Your task to perform on an android device: Search for sushi restaurants on Maps Image 0: 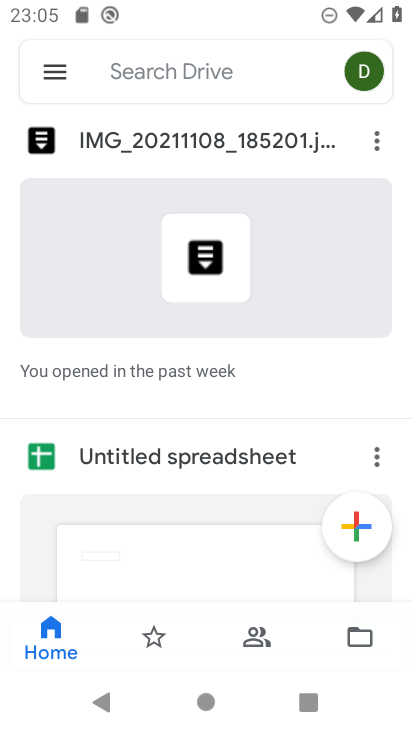
Step 0: press home button
Your task to perform on an android device: Search for sushi restaurants on Maps Image 1: 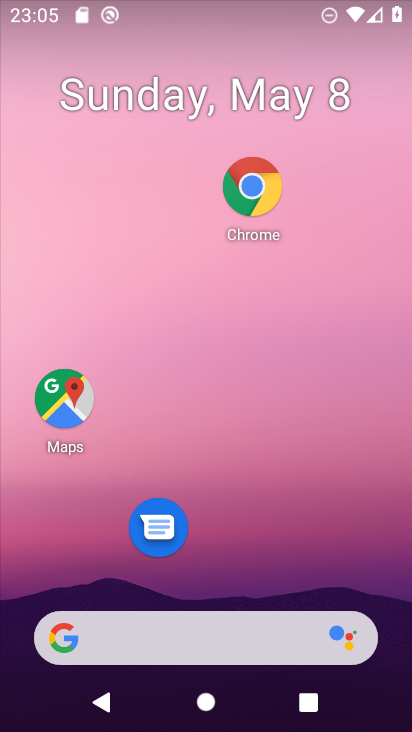
Step 1: drag from (283, 497) to (338, 99)
Your task to perform on an android device: Search for sushi restaurants on Maps Image 2: 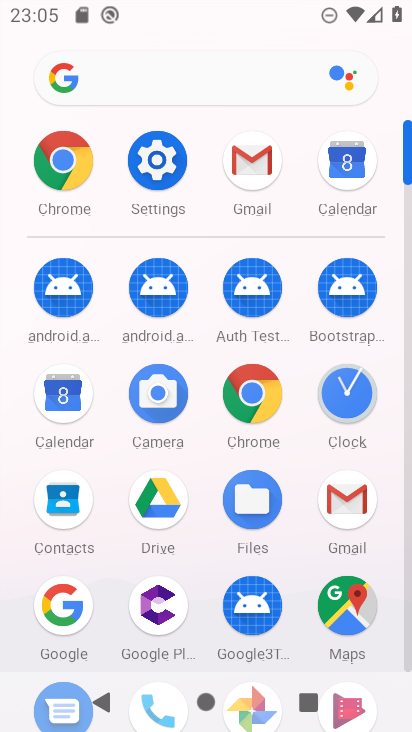
Step 2: click (333, 592)
Your task to perform on an android device: Search for sushi restaurants on Maps Image 3: 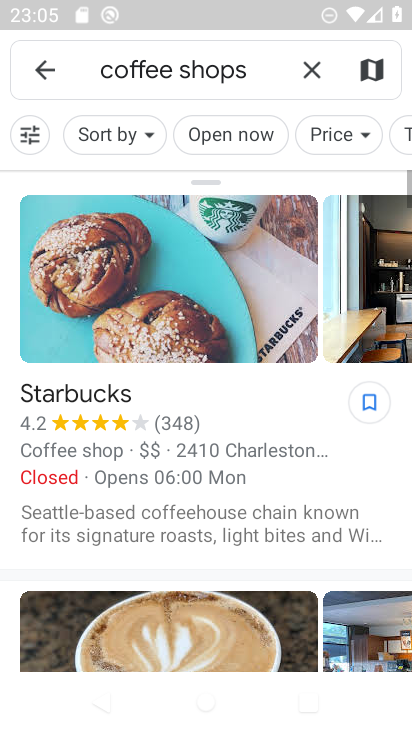
Step 3: click (310, 74)
Your task to perform on an android device: Search for sushi restaurants on Maps Image 4: 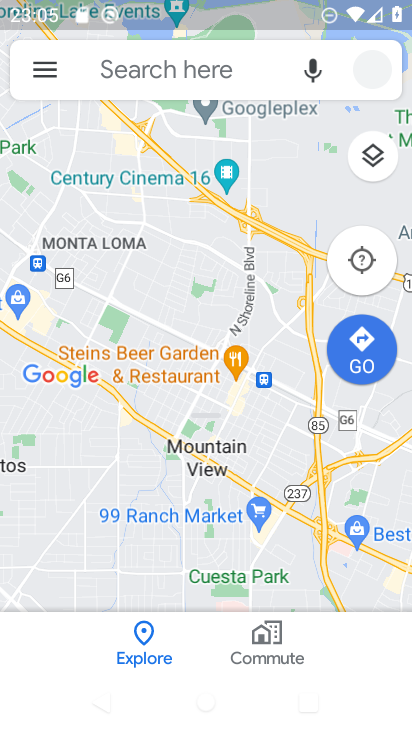
Step 4: click (151, 54)
Your task to perform on an android device: Search for sushi restaurants on Maps Image 5: 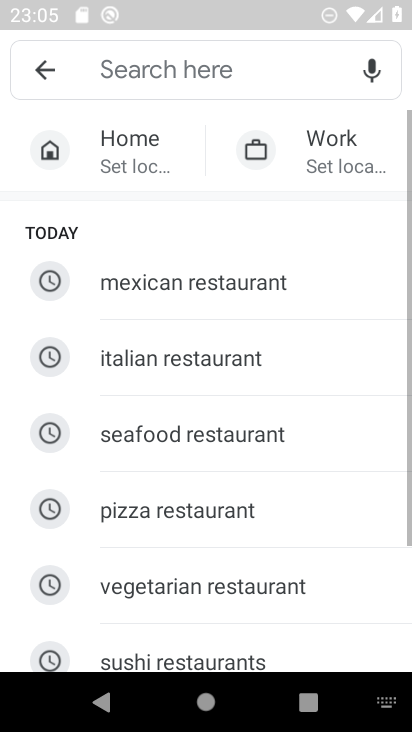
Step 5: type " sushi restaurants"
Your task to perform on an android device: Search for sushi restaurants on Maps Image 6: 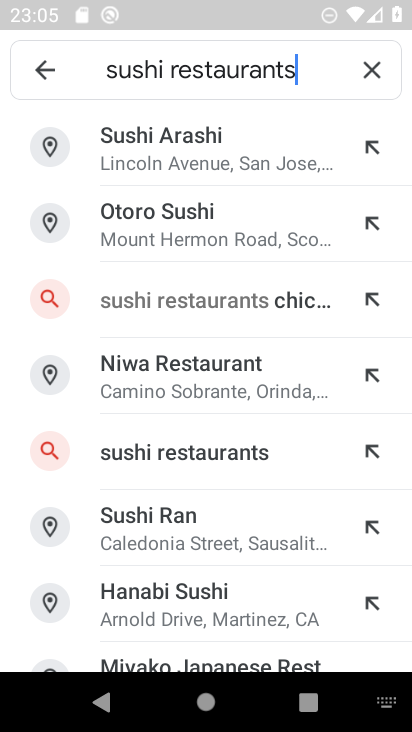
Step 6: click (230, 457)
Your task to perform on an android device: Search for sushi restaurants on Maps Image 7: 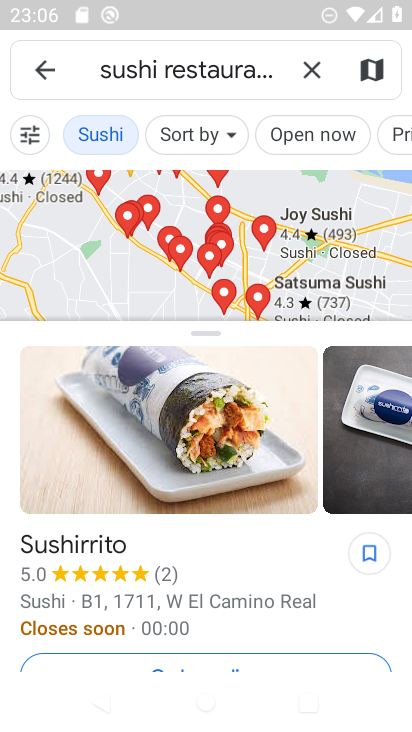
Step 7: task complete